Your task to perform on an android device: Open Google Chrome and click the shortcut for Amazon.com Image 0: 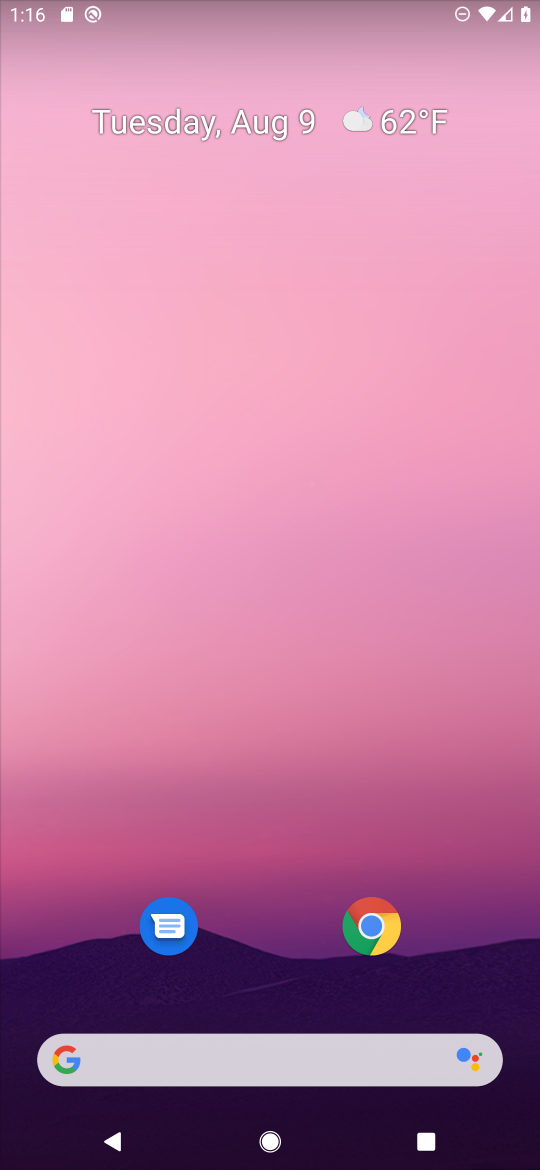
Step 0: click (357, 927)
Your task to perform on an android device: Open Google Chrome and click the shortcut for Amazon.com Image 1: 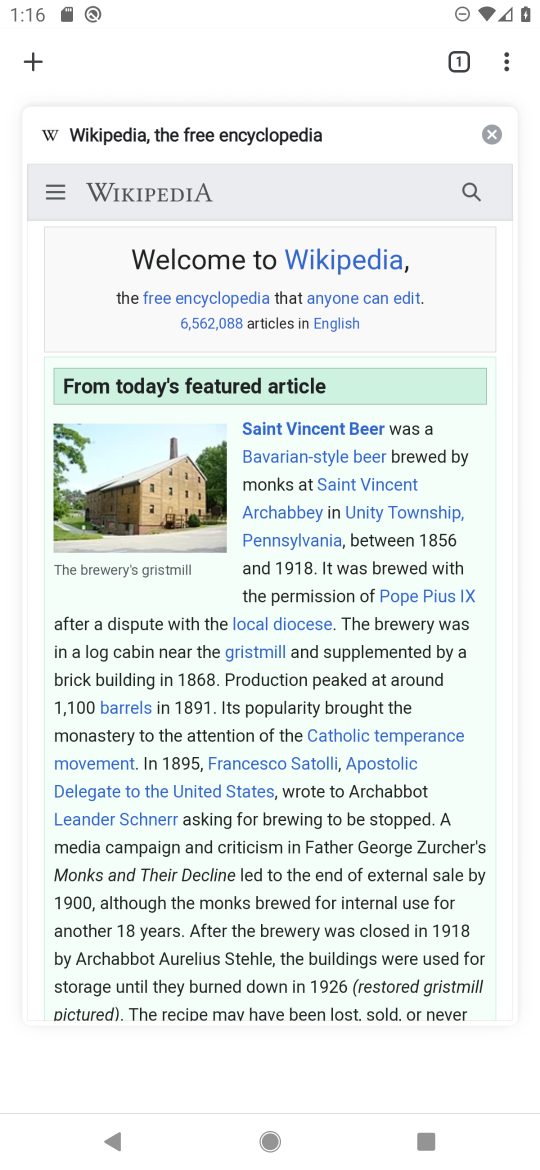
Step 1: click (488, 136)
Your task to perform on an android device: Open Google Chrome and click the shortcut for Amazon.com Image 2: 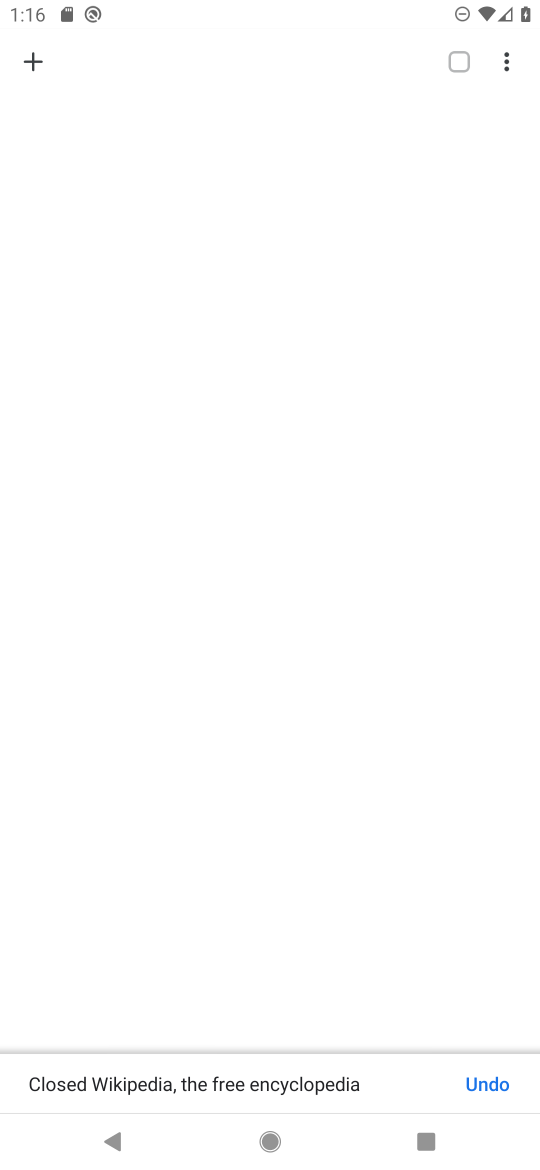
Step 2: click (40, 58)
Your task to perform on an android device: Open Google Chrome and click the shortcut for Amazon.com Image 3: 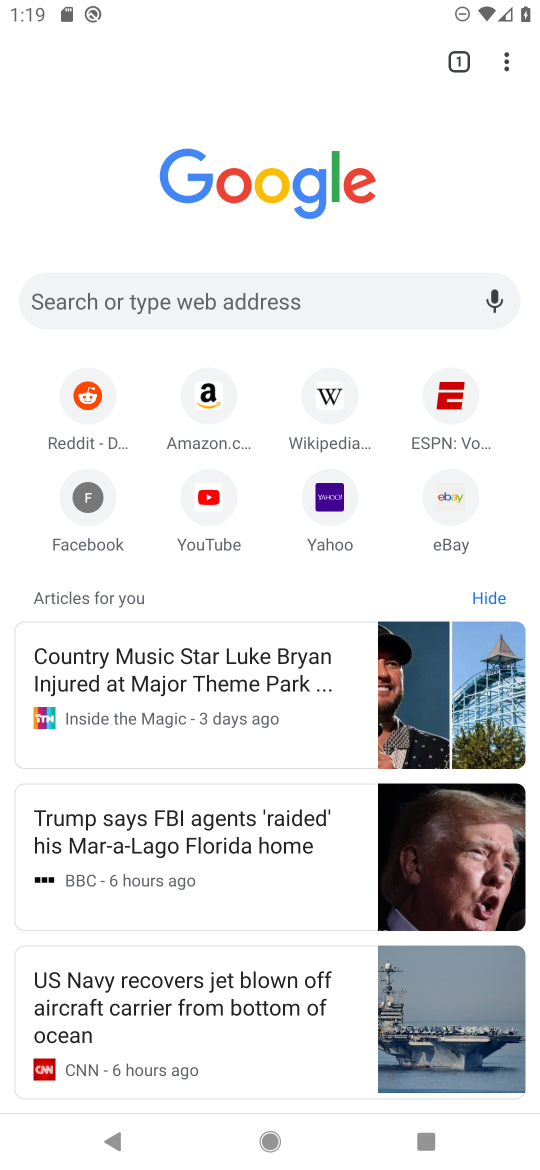
Step 3: click (228, 388)
Your task to perform on an android device: Open Google Chrome and click the shortcut for Amazon.com Image 4: 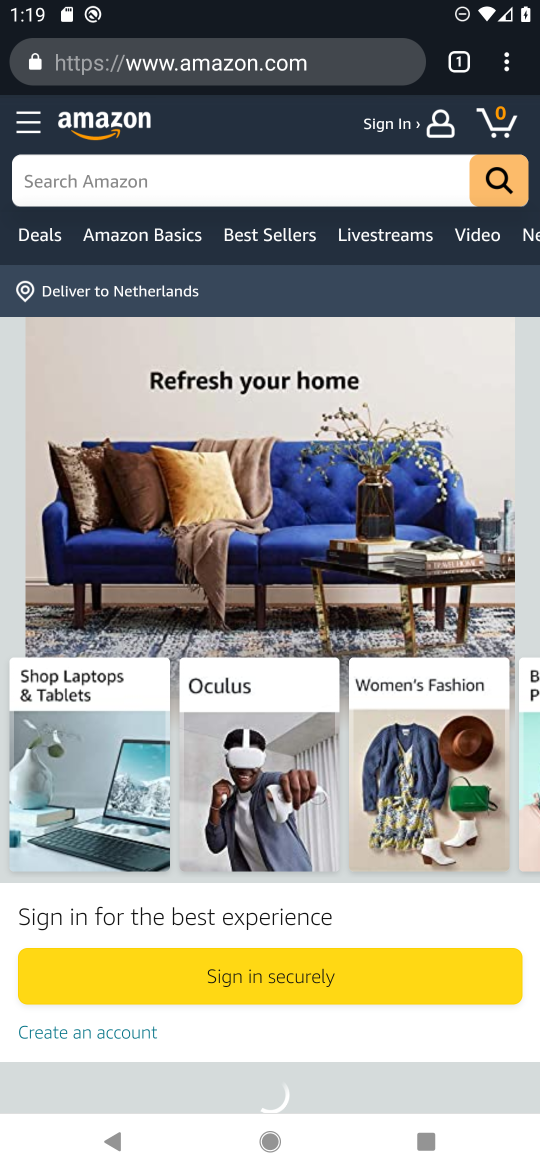
Step 4: task complete